Your task to perform on an android device: turn off location Image 0: 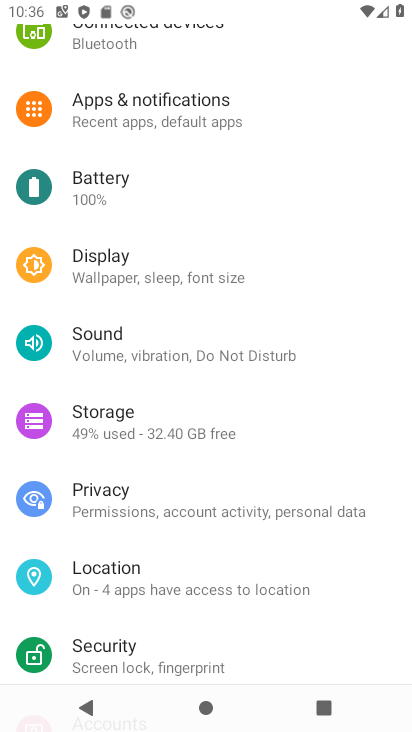
Step 0: click (297, 558)
Your task to perform on an android device: turn off location Image 1: 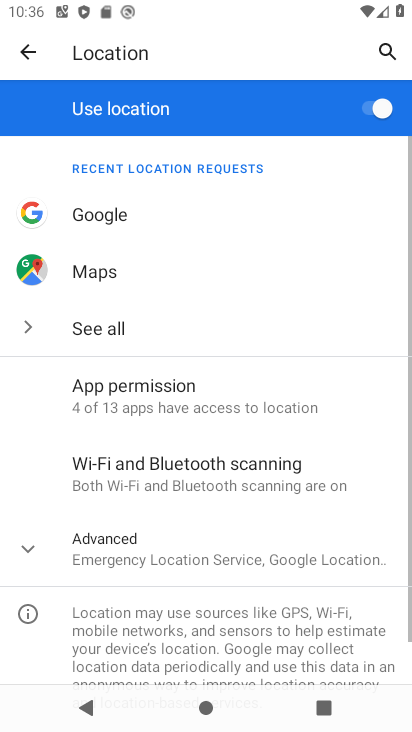
Step 1: click (366, 119)
Your task to perform on an android device: turn off location Image 2: 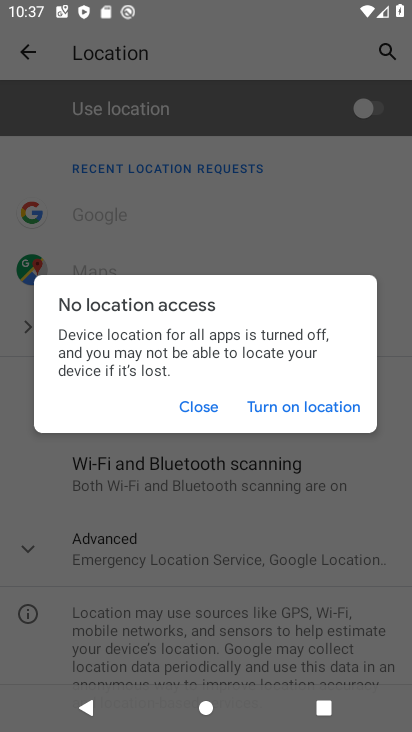
Step 2: click (187, 407)
Your task to perform on an android device: turn off location Image 3: 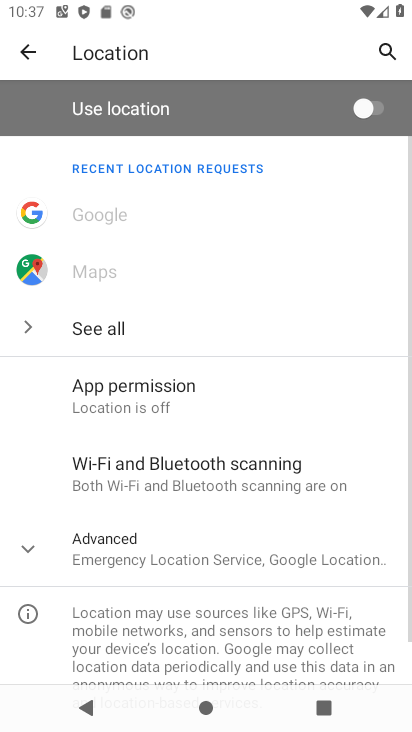
Step 3: task complete